Your task to perform on an android device: install app "Gboard" Image 0: 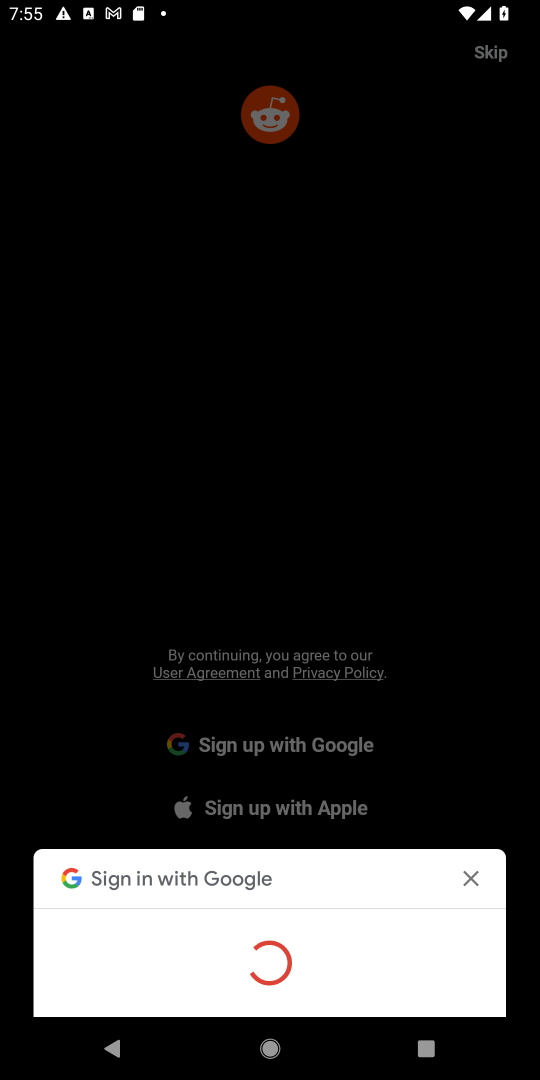
Step 0: press home button
Your task to perform on an android device: install app "Gboard" Image 1: 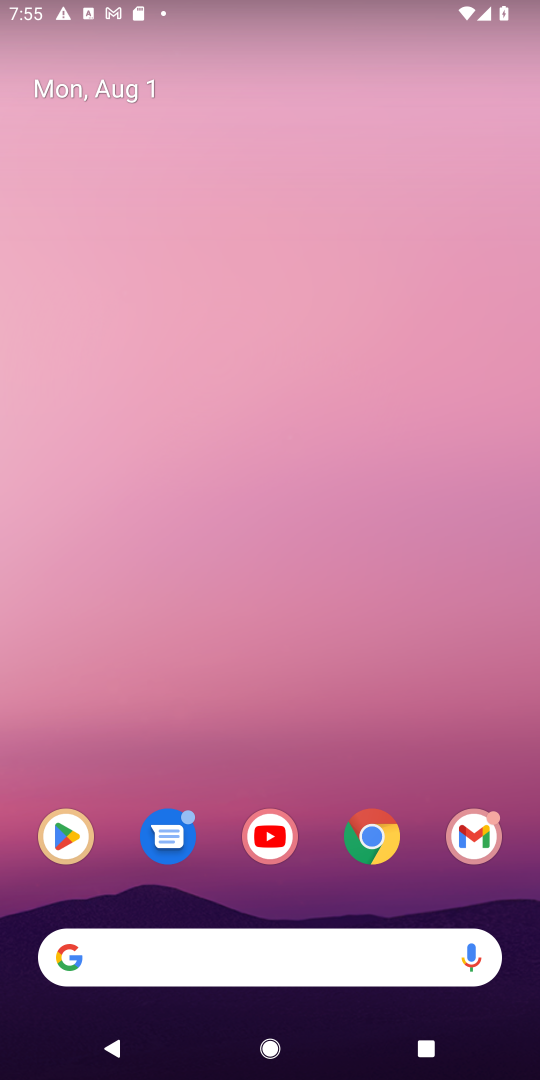
Step 1: click (62, 833)
Your task to perform on an android device: install app "Gboard" Image 2: 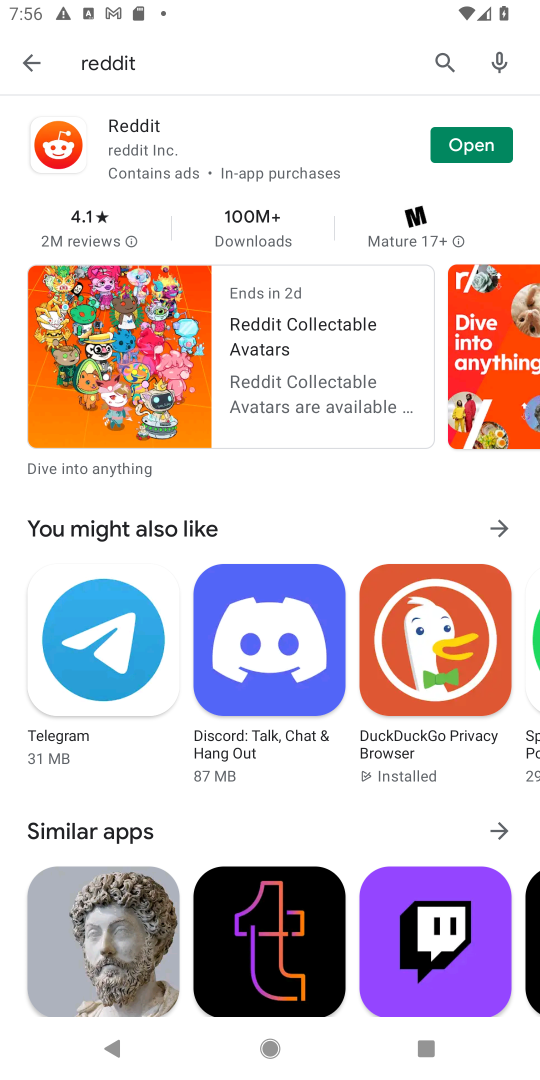
Step 2: click (441, 55)
Your task to perform on an android device: install app "Gboard" Image 3: 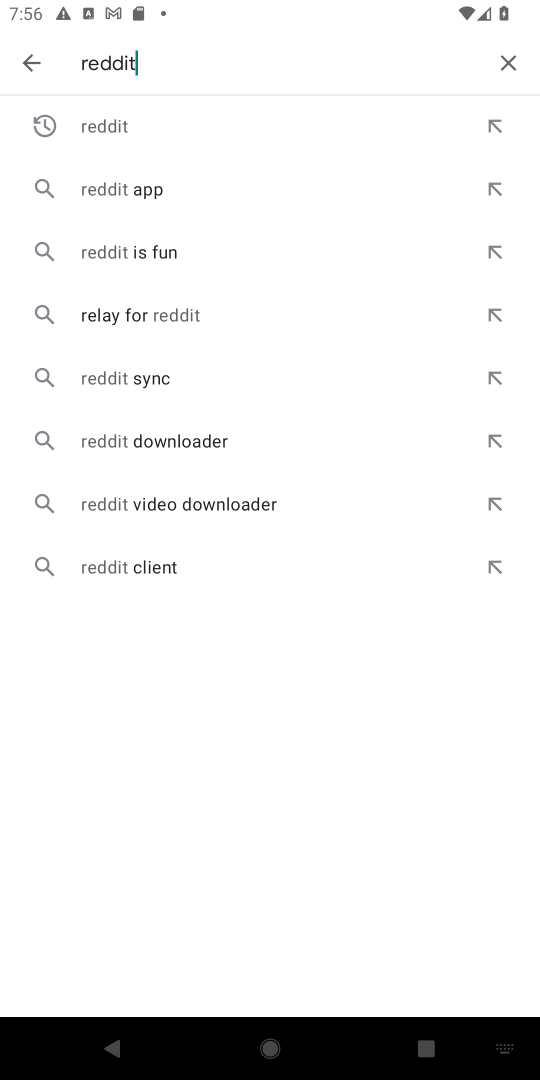
Step 3: click (501, 53)
Your task to perform on an android device: install app "Gboard" Image 4: 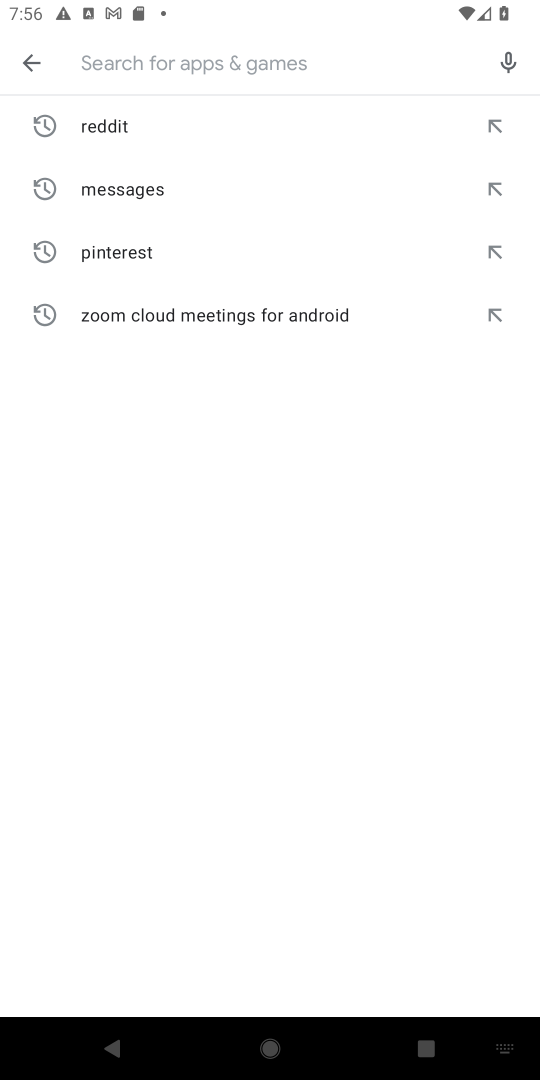
Step 4: type "Gboard"
Your task to perform on an android device: install app "Gboard" Image 5: 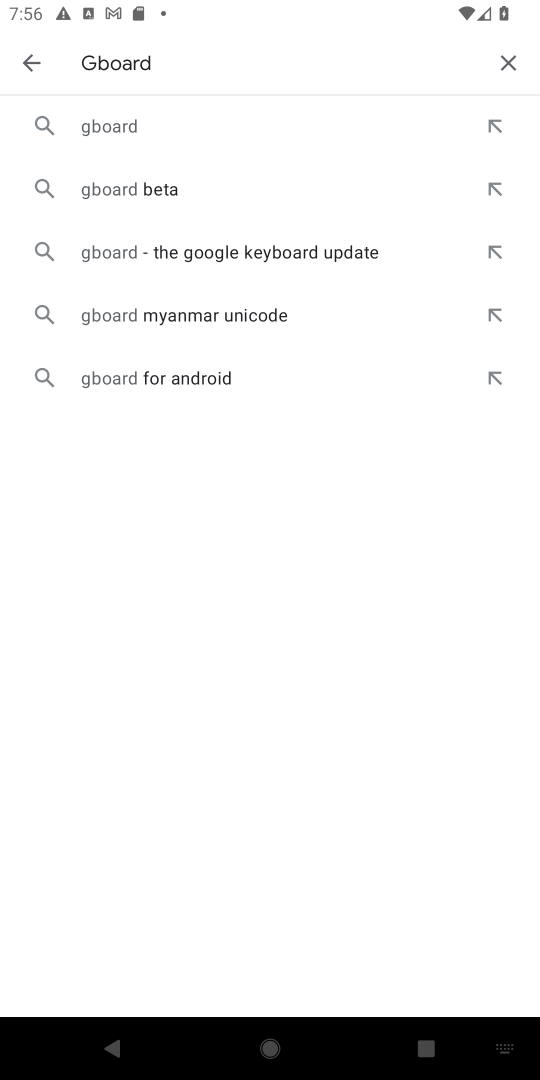
Step 5: click (130, 116)
Your task to perform on an android device: install app "Gboard" Image 6: 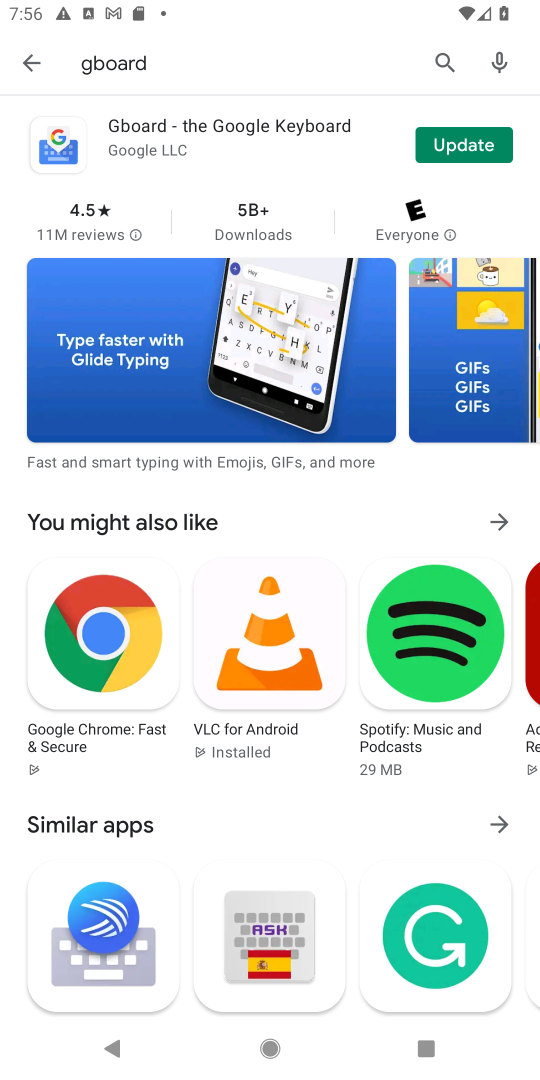
Step 6: click (173, 142)
Your task to perform on an android device: install app "Gboard" Image 7: 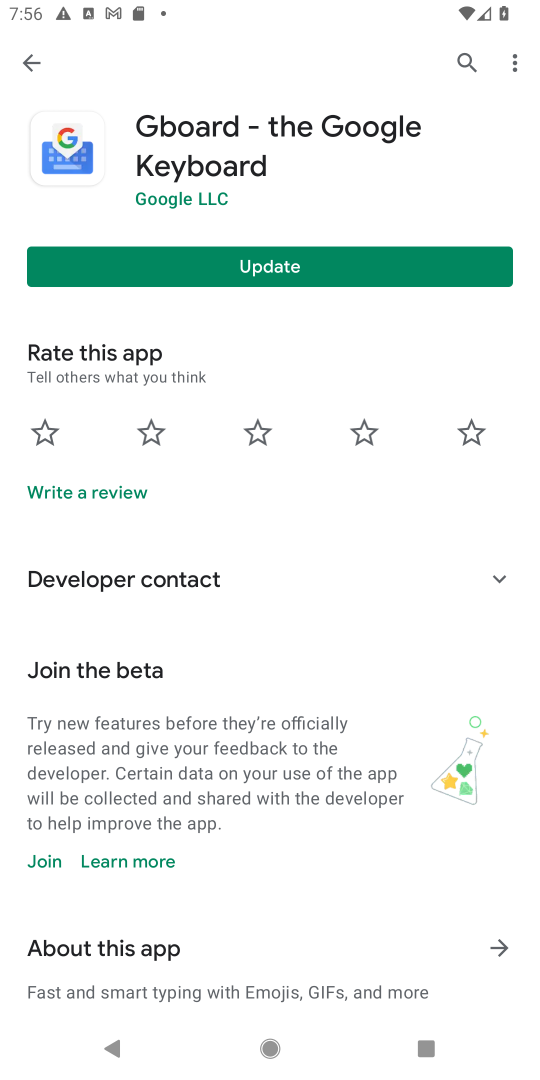
Step 7: task complete